Your task to perform on an android device: Search for dell xps on ebay.com, select the first entry, and add it to the cart. Image 0: 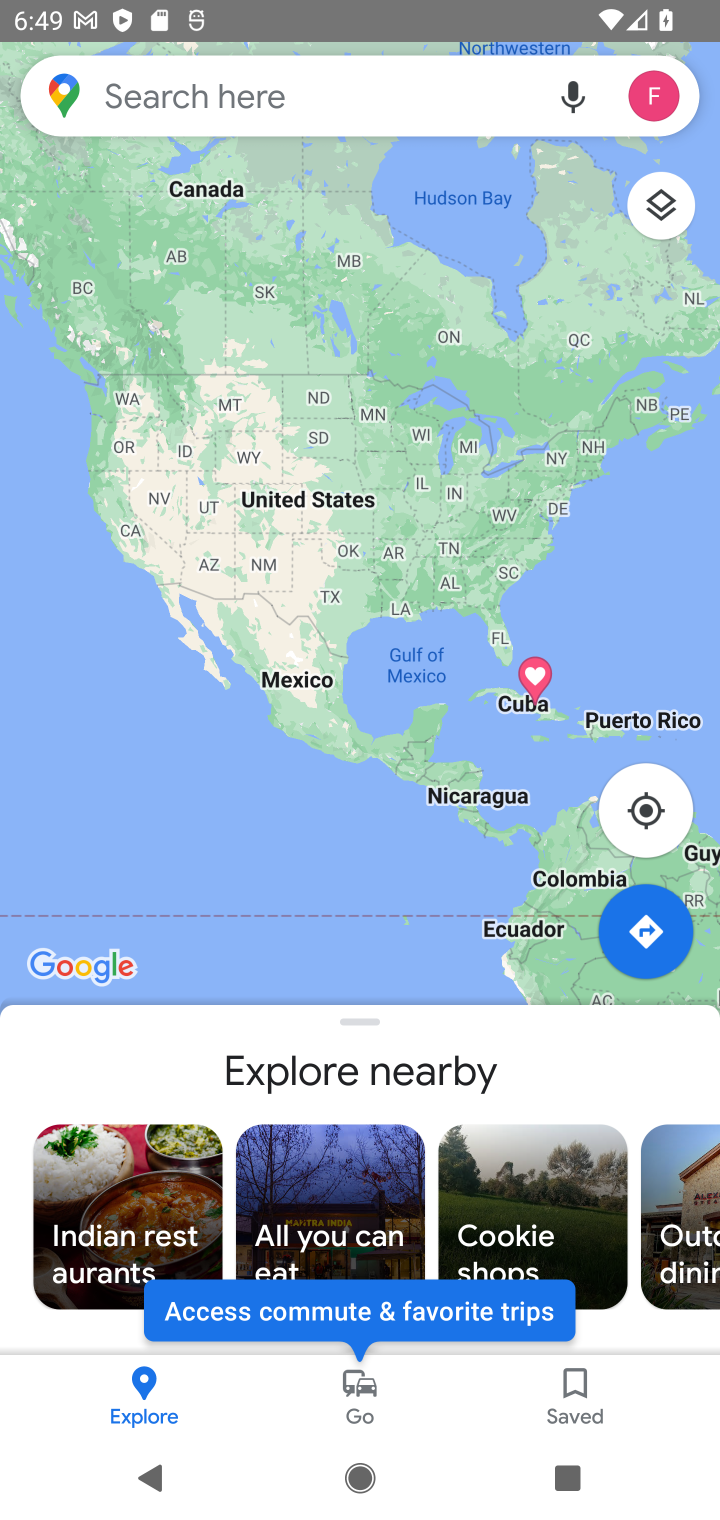
Step 0: press home button
Your task to perform on an android device: Search for dell xps on ebay.com, select the first entry, and add it to the cart. Image 1: 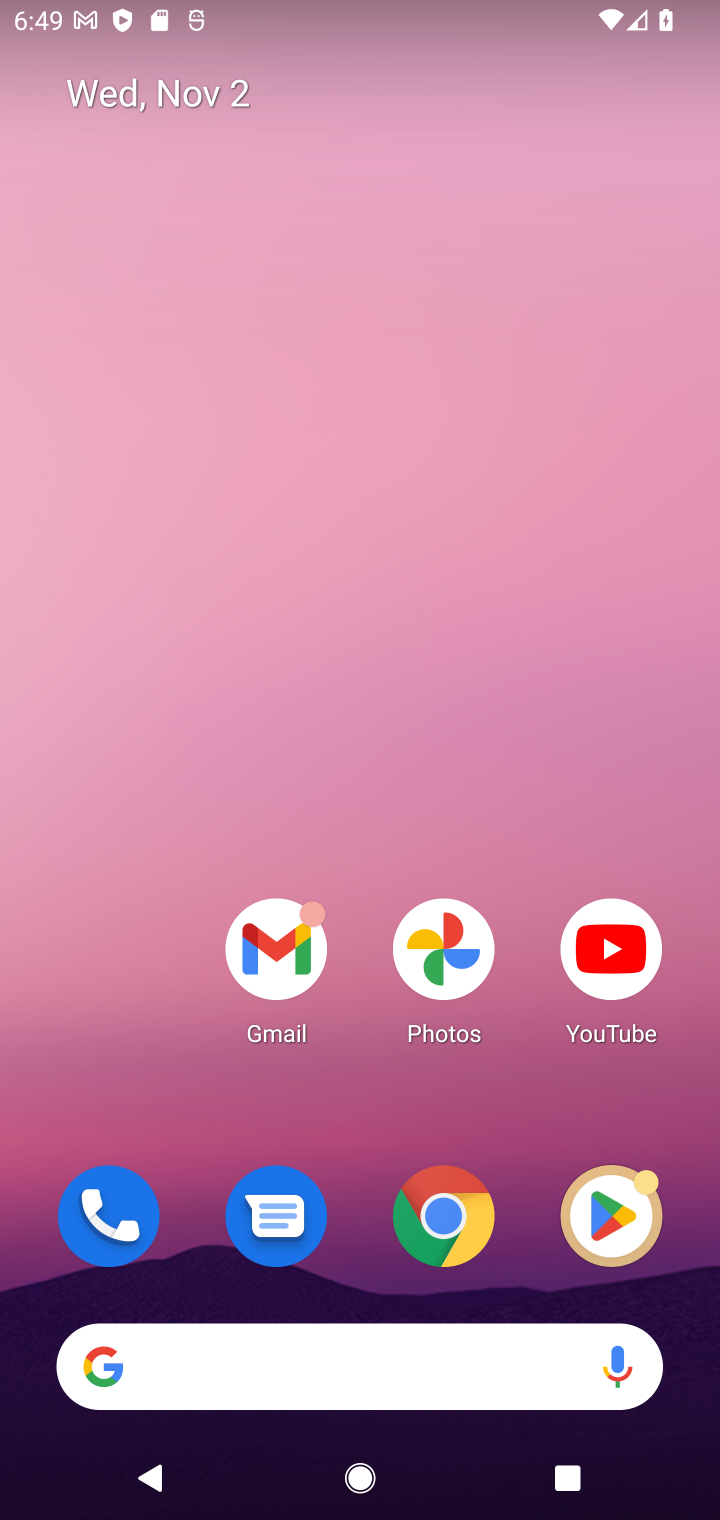
Step 1: drag from (365, 1137) to (598, 297)
Your task to perform on an android device: Search for dell xps on ebay.com, select the first entry, and add it to the cart. Image 2: 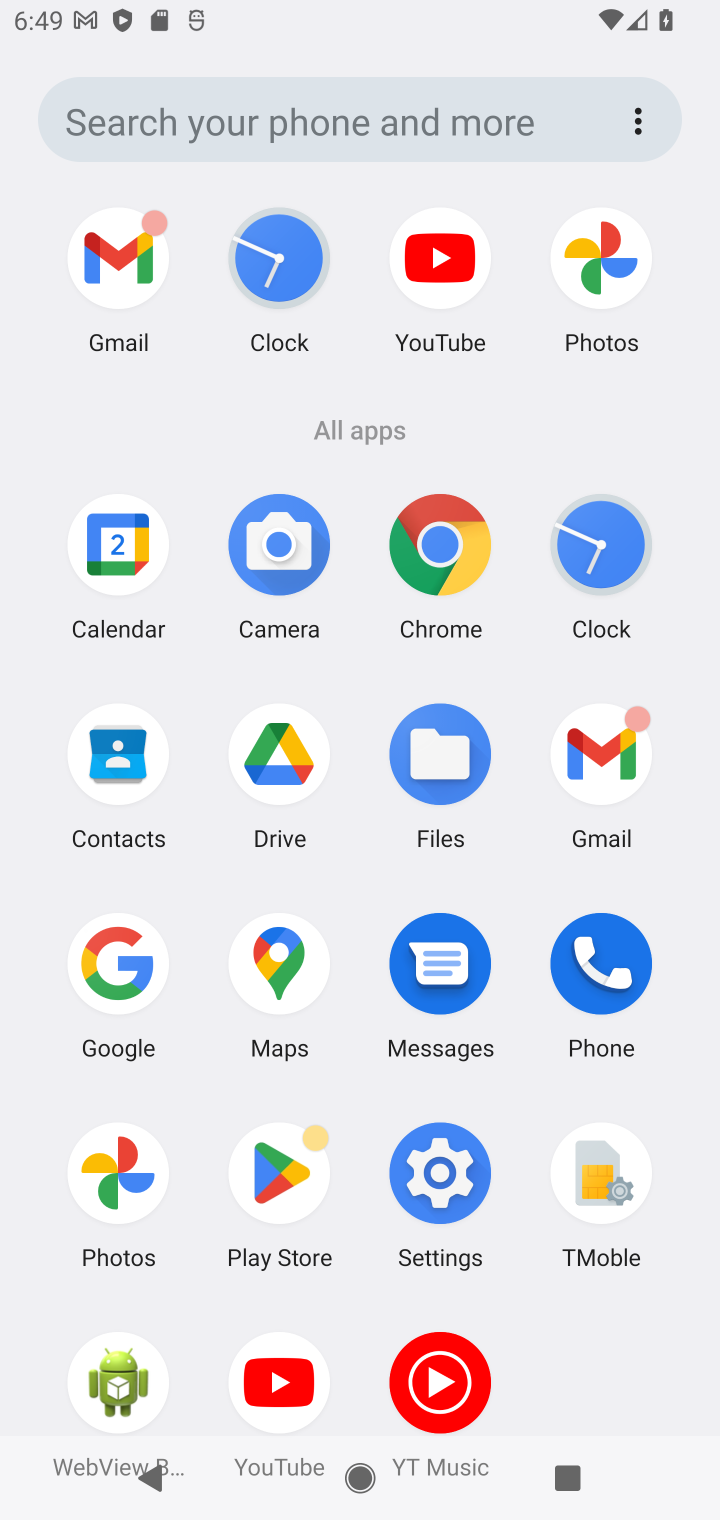
Step 2: click (436, 547)
Your task to perform on an android device: Search for dell xps on ebay.com, select the first entry, and add it to the cart. Image 3: 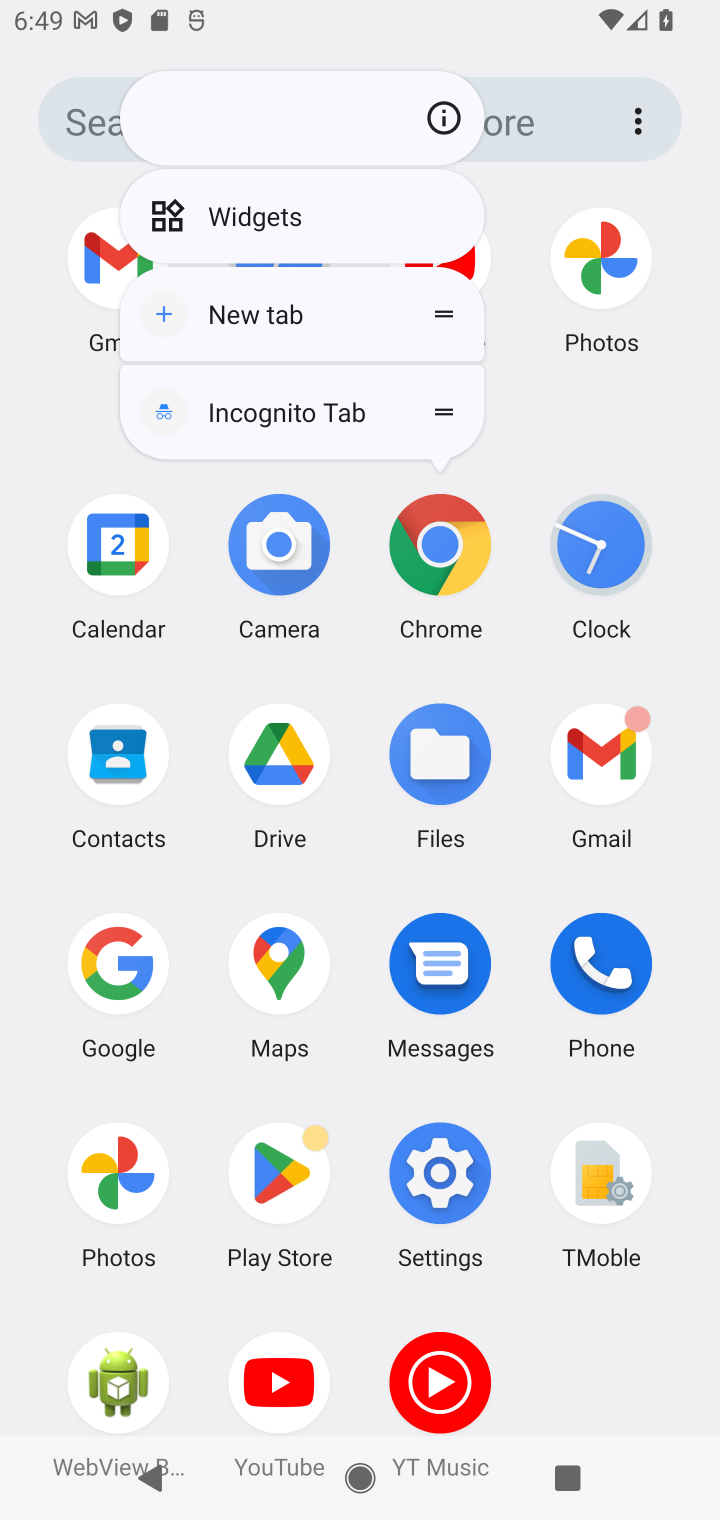
Step 3: click (448, 550)
Your task to perform on an android device: Search for dell xps on ebay.com, select the first entry, and add it to the cart. Image 4: 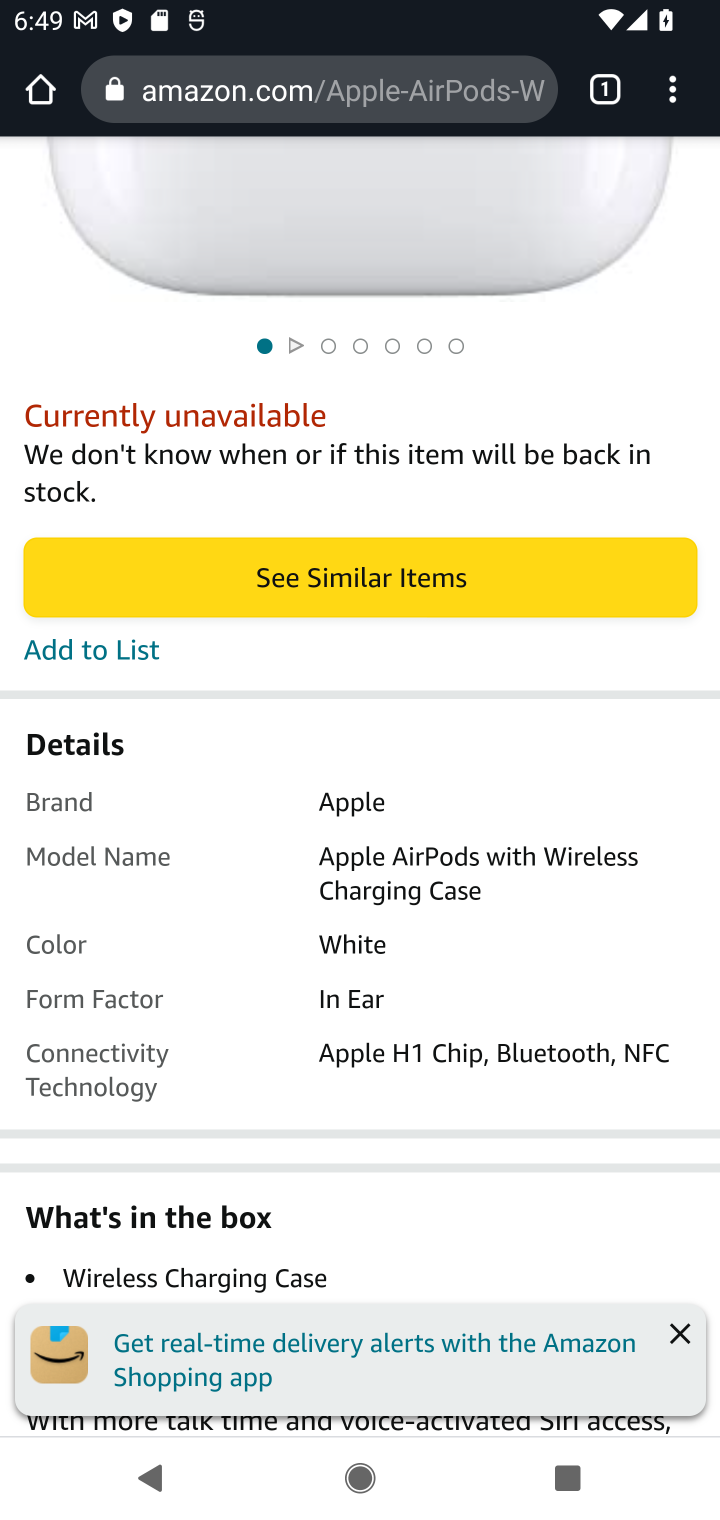
Step 4: click (353, 91)
Your task to perform on an android device: Search for dell xps on ebay.com, select the first entry, and add it to the cart. Image 5: 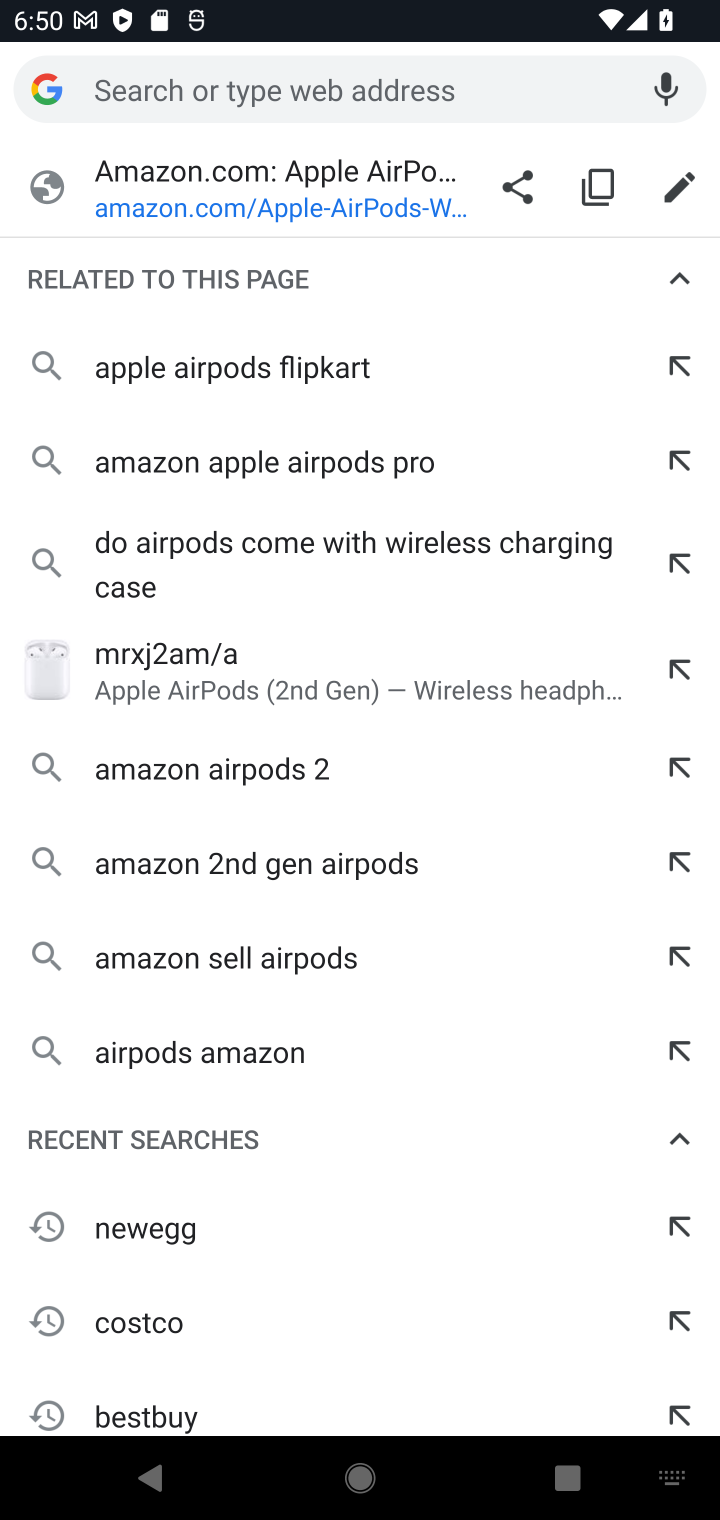
Step 5: type "ebay.com"
Your task to perform on an android device: Search for dell xps on ebay.com, select the first entry, and add it to the cart. Image 6: 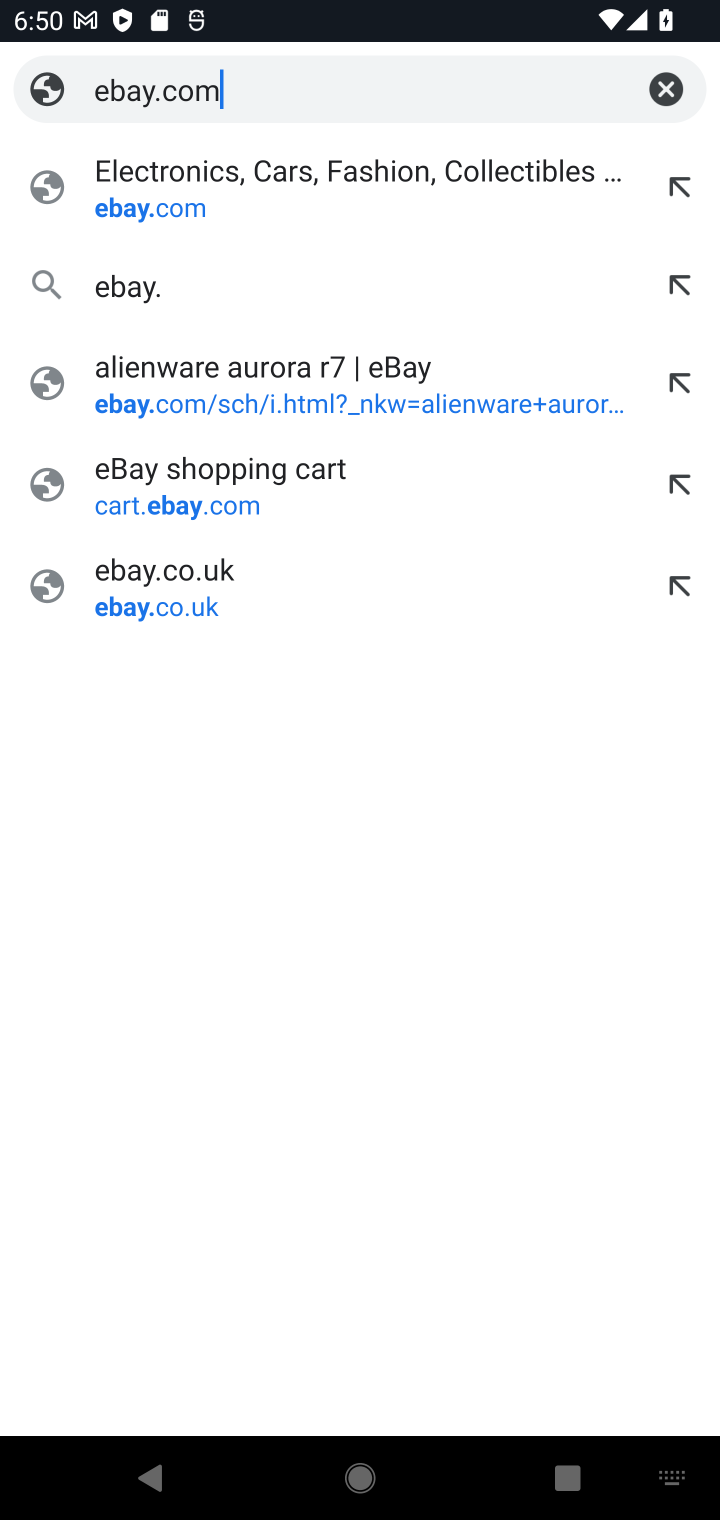
Step 6: press enter
Your task to perform on an android device: Search for dell xps on ebay.com, select the first entry, and add it to the cart. Image 7: 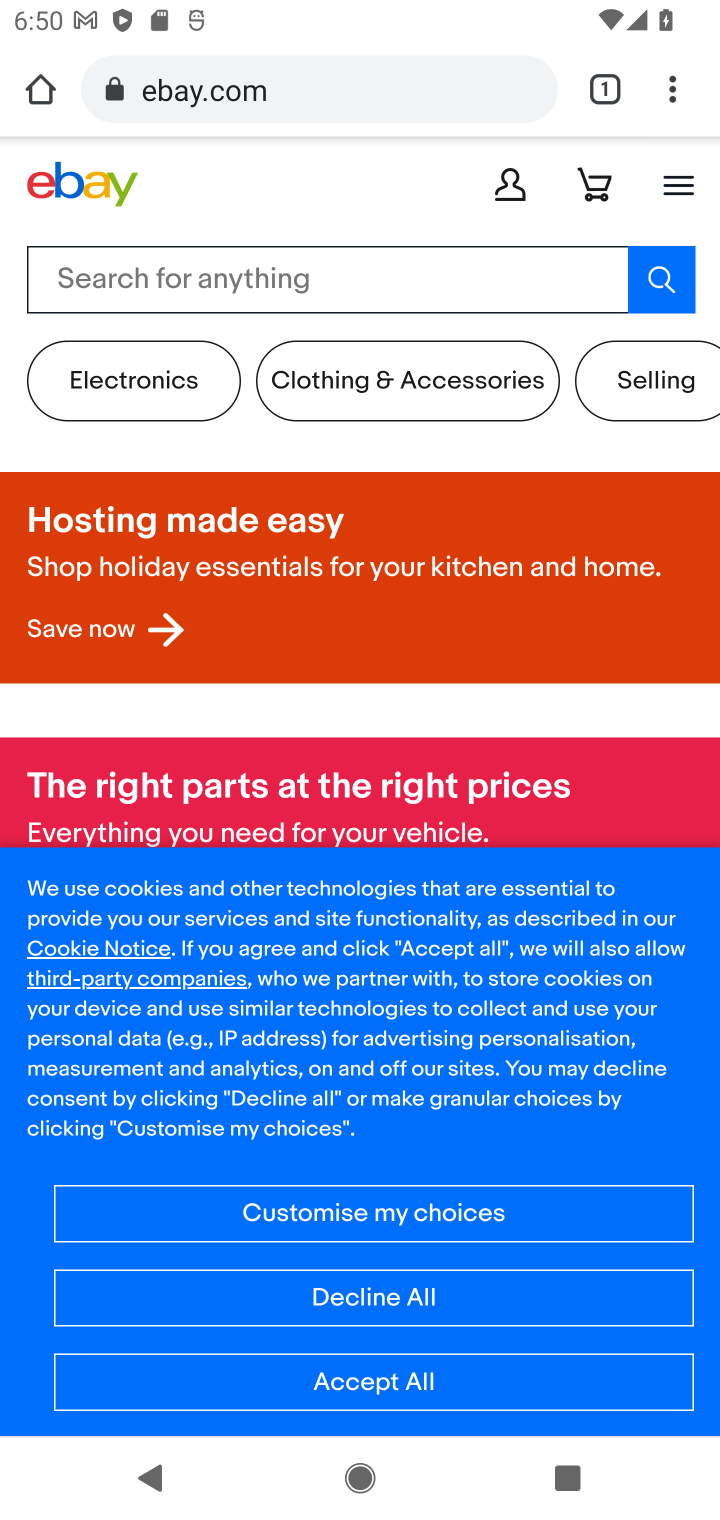
Step 7: click (231, 293)
Your task to perform on an android device: Search for dell xps on ebay.com, select the first entry, and add it to the cart. Image 8: 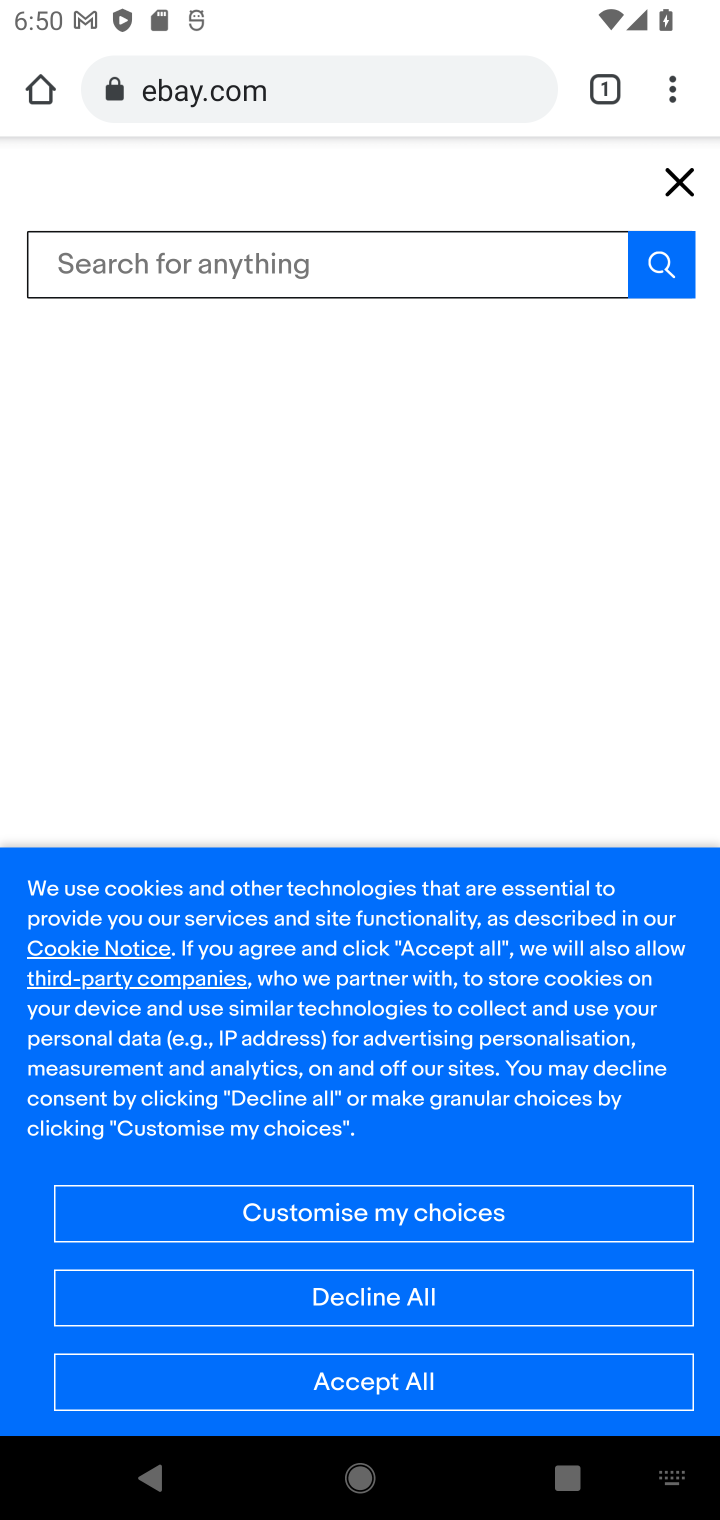
Step 8: type "dell xps"
Your task to perform on an android device: Search for dell xps on ebay.com, select the first entry, and add it to the cart. Image 9: 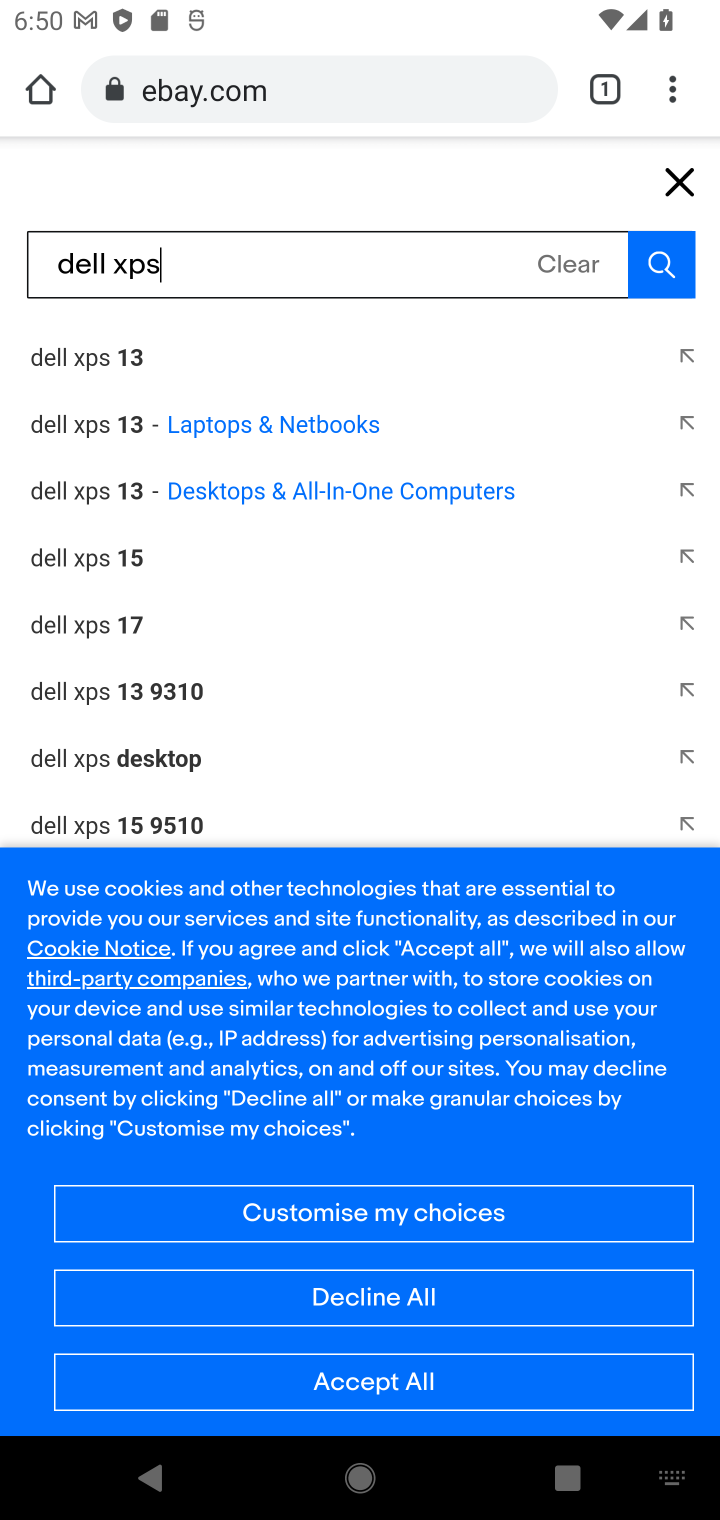
Step 9: press enter
Your task to perform on an android device: Search for dell xps on ebay.com, select the first entry, and add it to the cart. Image 10: 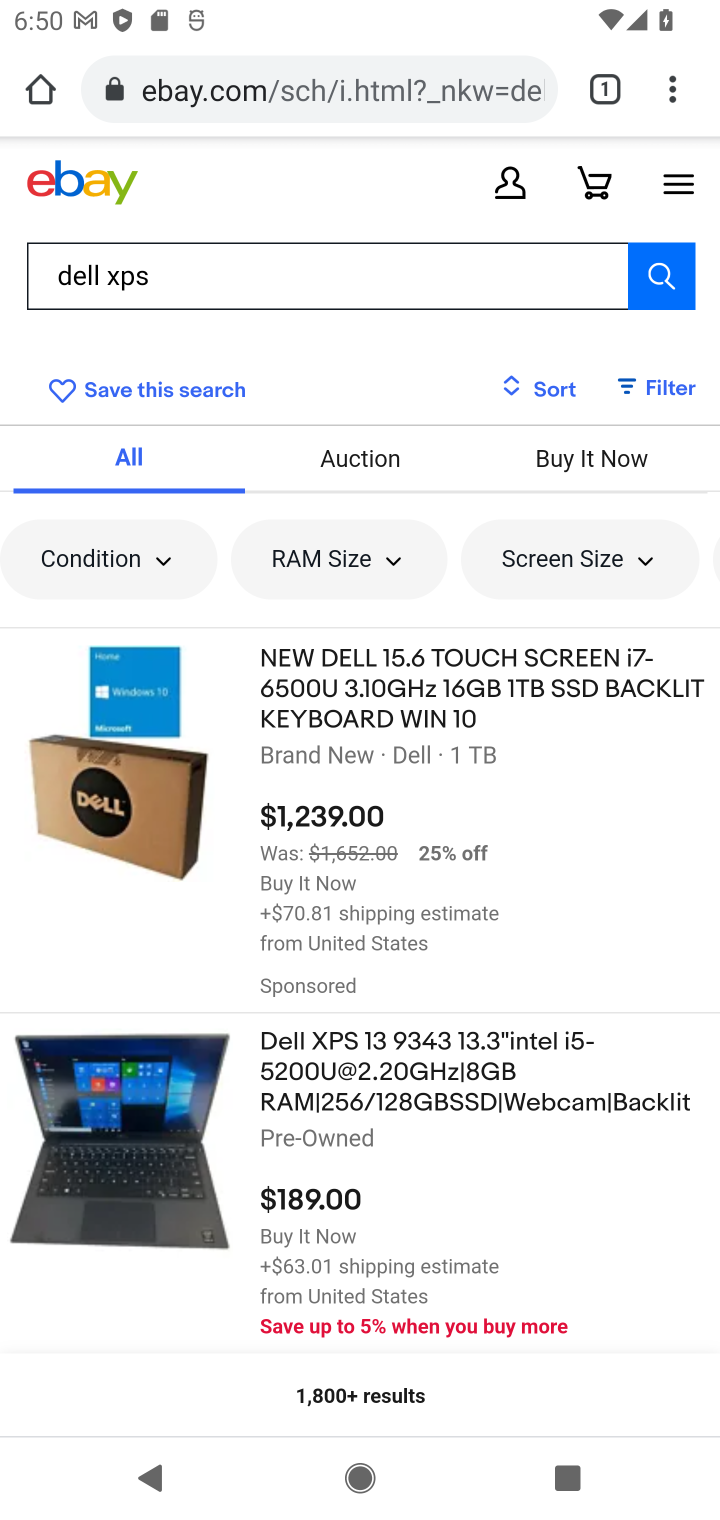
Step 10: click (128, 1121)
Your task to perform on an android device: Search for dell xps on ebay.com, select the first entry, and add it to the cart. Image 11: 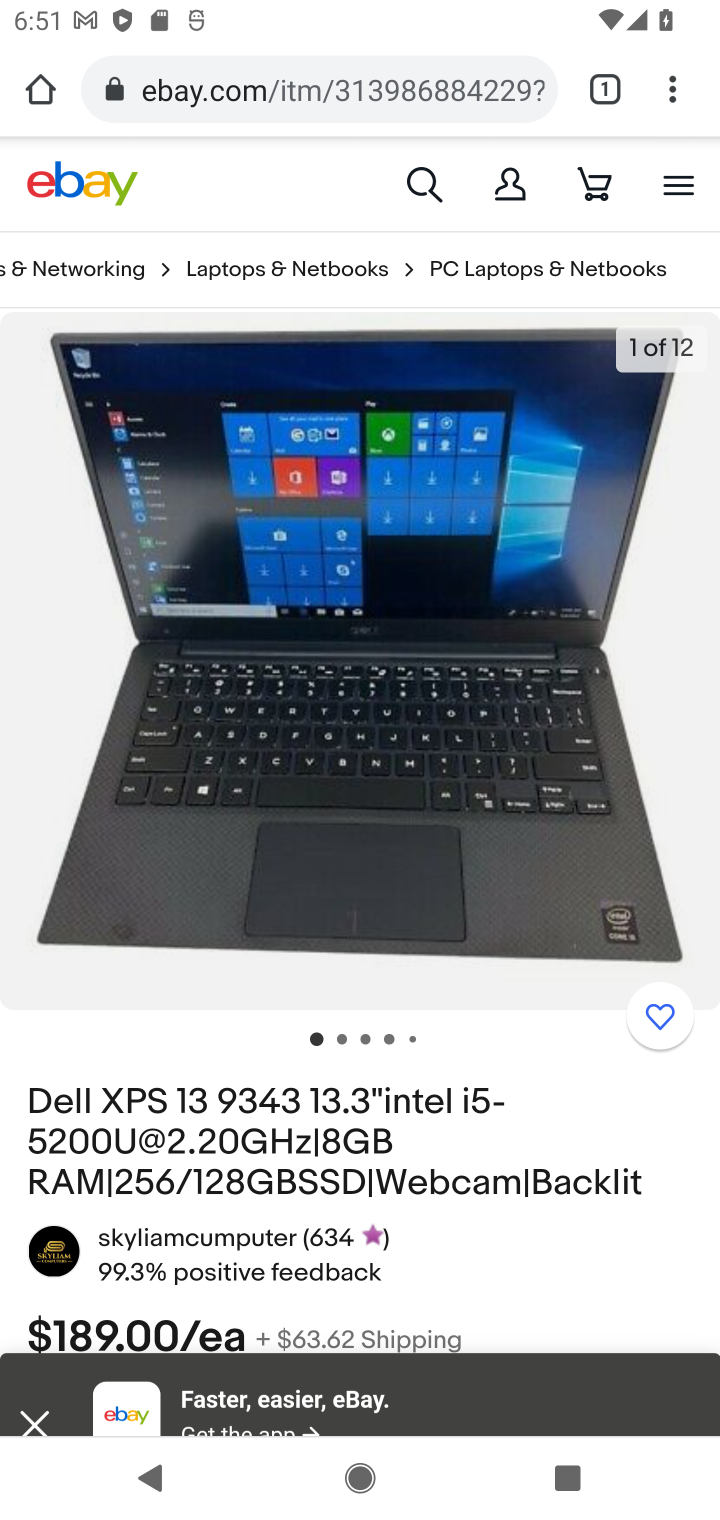
Step 11: drag from (425, 1273) to (501, 618)
Your task to perform on an android device: Search for dell xps on ebay.com, select the first entry, and add it to the cart. Image 12: 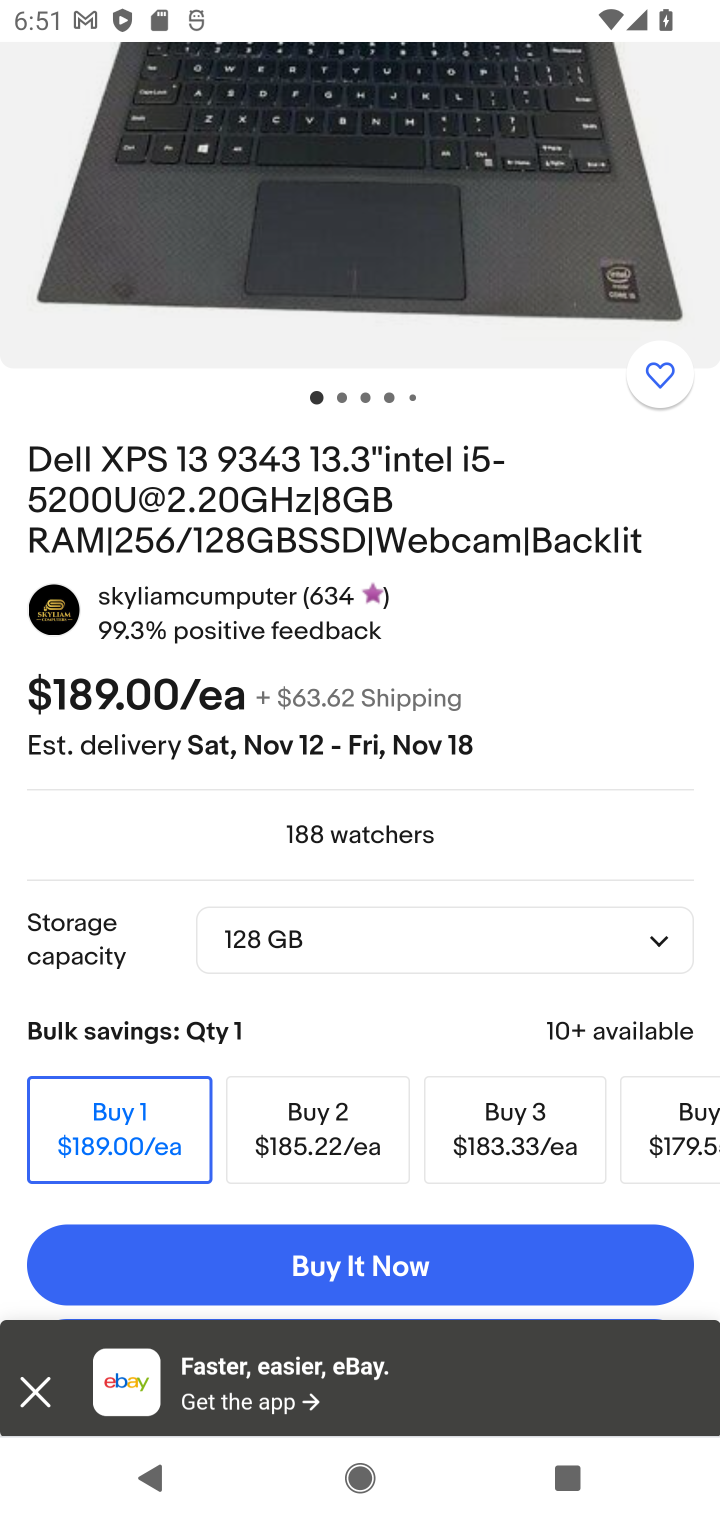
Step 12: drag from (456, 1212) to (480, 817)
Your task to perform on an android device: Search for dell xps on ebay.com, select the first entry, and add it to the cart. Image 13: 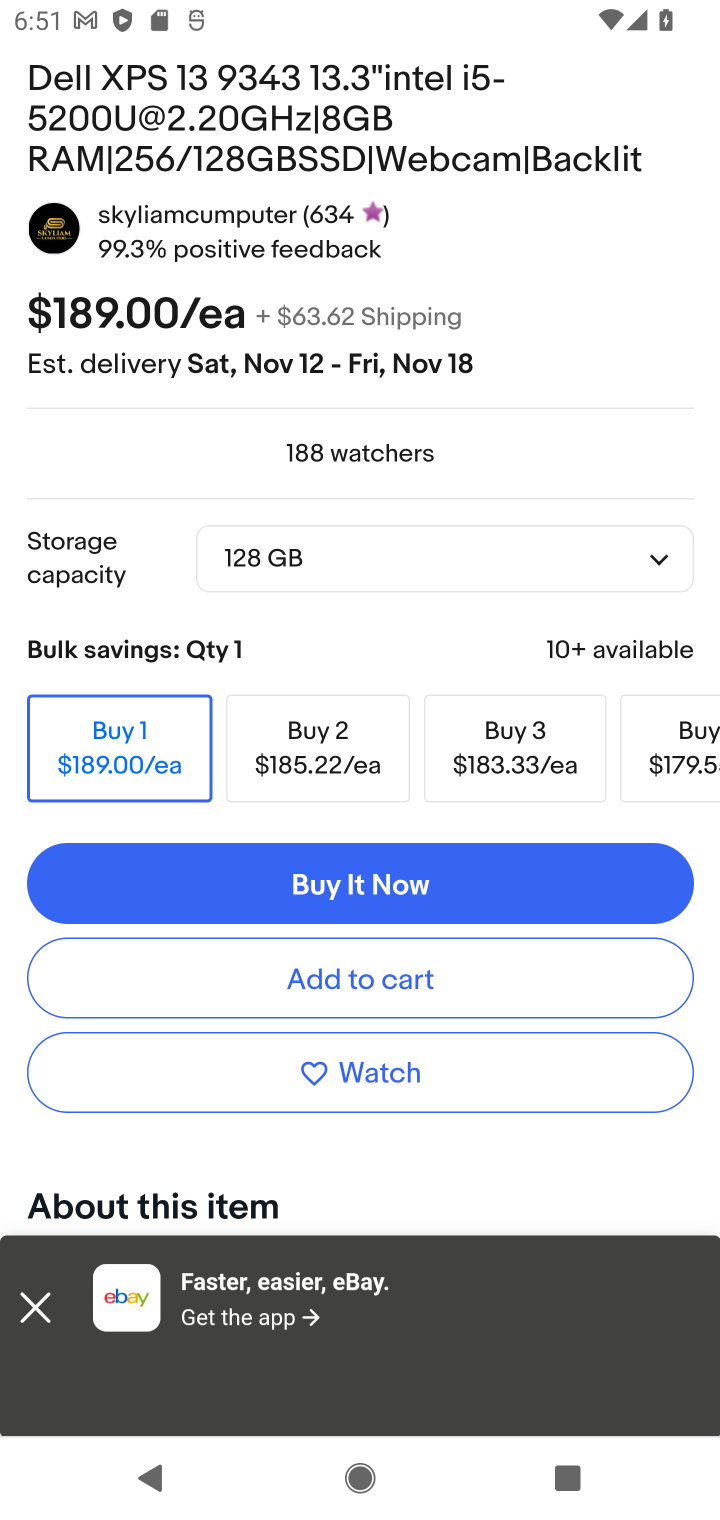
Step 13: click (391, 966)
Your task to perform on an android device: Search for dell xps on ebay.com, select the first entry, and add it to the cart. Image 14: 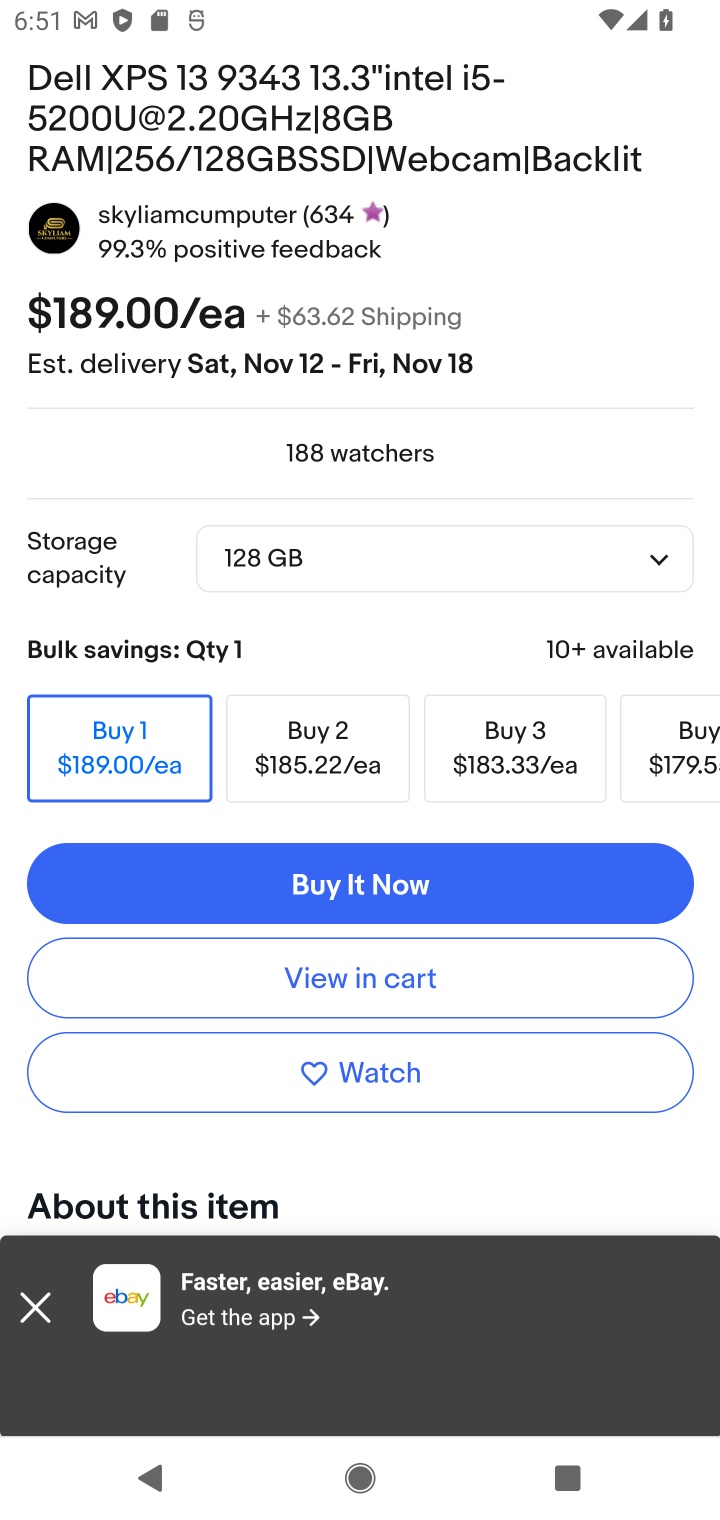
Step 14: task complete